Your task to perform on an android device: Go to internet settings Image 0: 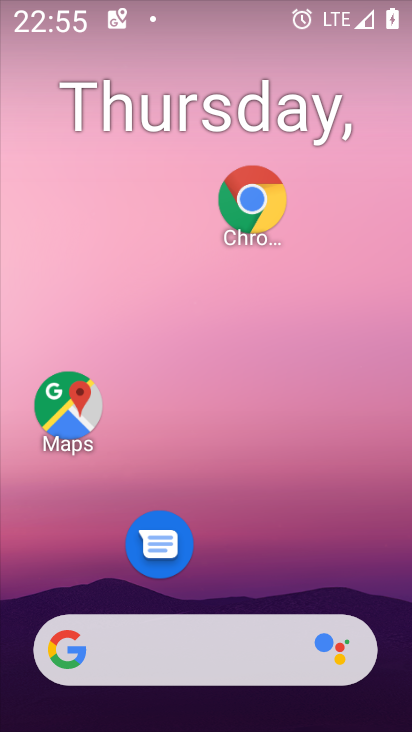
Step 0: drag from (224, 598) to (371, 75)
Your task to perform on an android device: Go to internet settings Image 1: 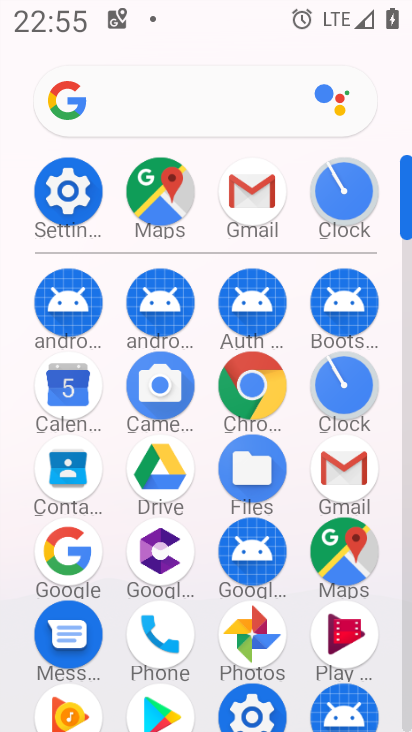
Step 1: click (68, 192)
Your task to perform on an android device: Go to internet settings Image 2: 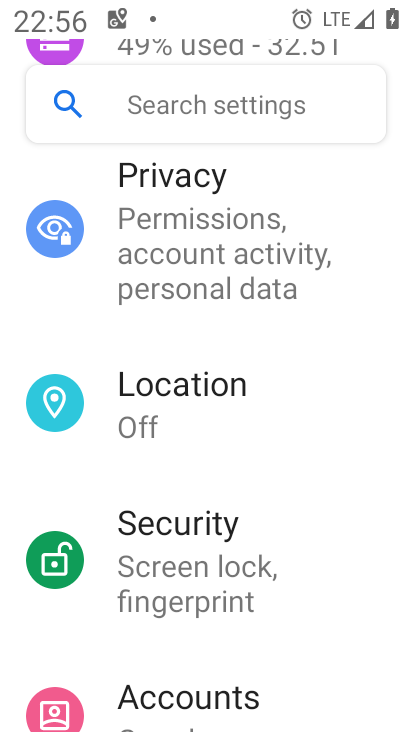
Step 2: drag from (245, 191) to (243, 710)
Your task to perform on an android device: Go to internet settings Image 3: 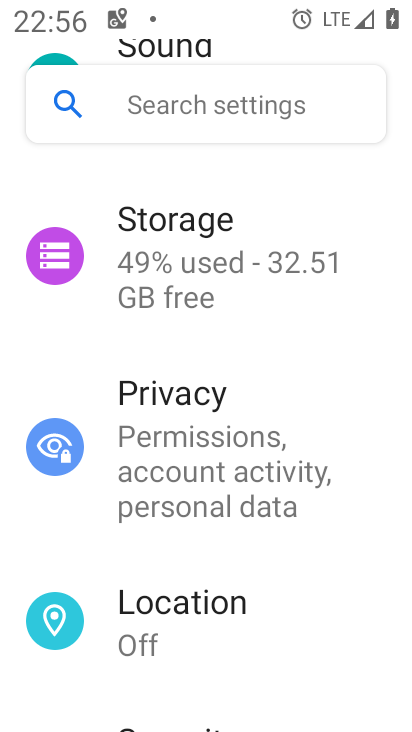
Step 3: drag from (203, 263) to (228, 716)
Your task to perform on an android device: Go to internet settings Image 4: 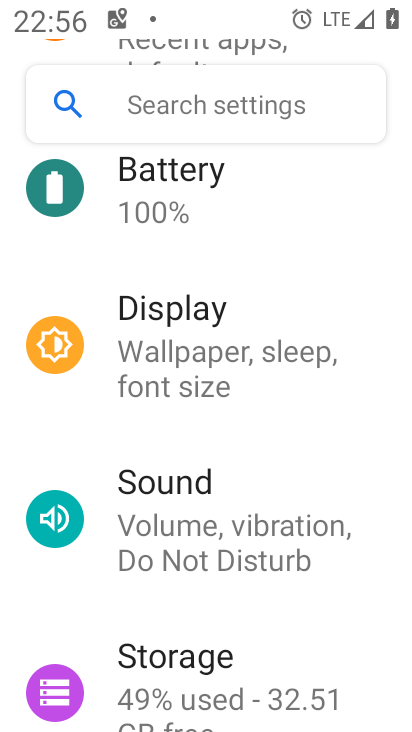
Step 4: drag from (233, 241) to (248, 633)
Your task to perform on an android device: Go to internet settings Image 5: 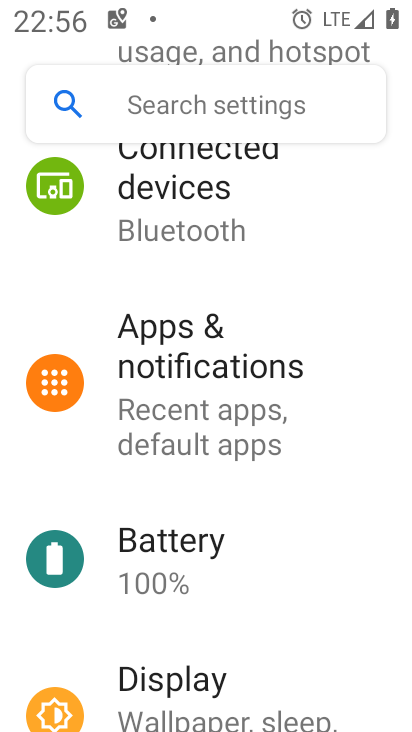
Step 5: drag from (240, 178) to (280, 611)
Your task to perform on an android device: Go to internet settings Image 6: 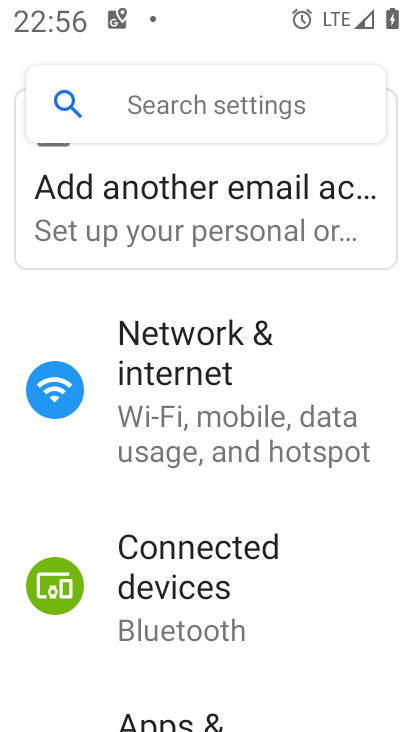
Step 6: drag from (110, 640) to (156, 337)
Your task to perform on an android device: Go to internet settings Image 7: 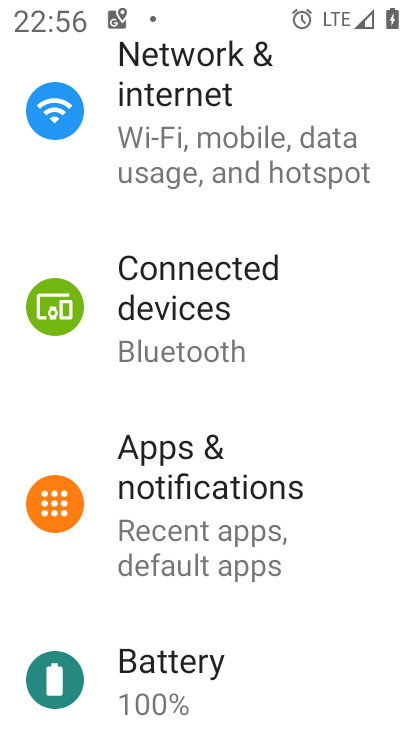
Step 7: click (203, 158)
Your task to perform on an android device: Go to internet settings Image 8: 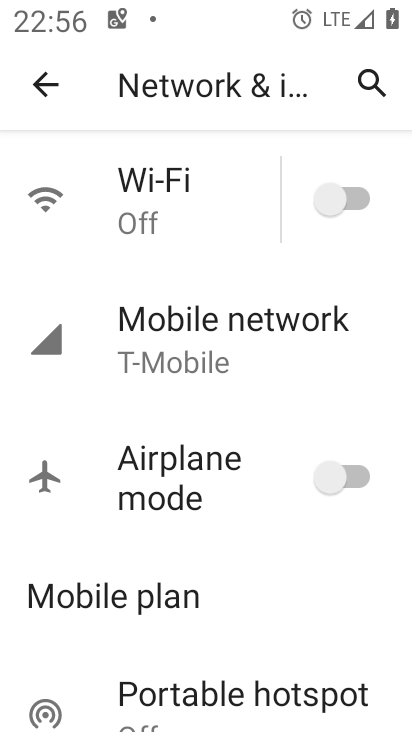
Step 8: task complete